Your task to perform on an android device: find photos in the google photos app Image 0: 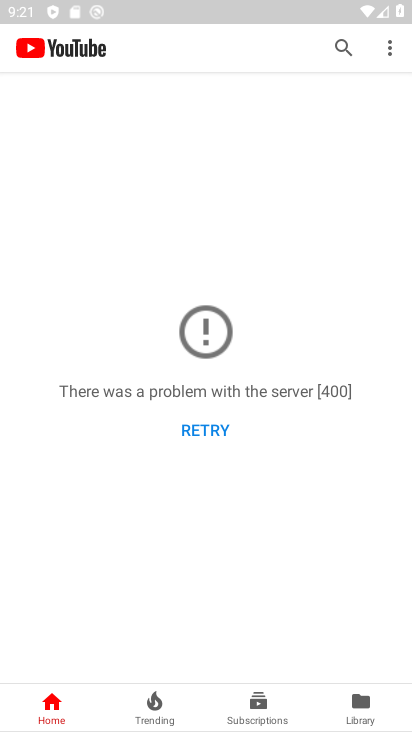
Step 0: press back button
Your task to perform on an android device: find photos in the google photos app Image 1: 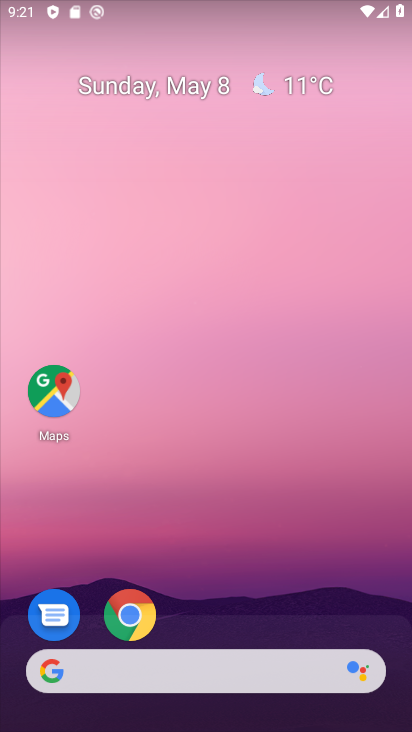
Step 1: drag from (207, 375) to (207, 247)
Your task to perform on an android device: find photos in the google photos app Image 2: 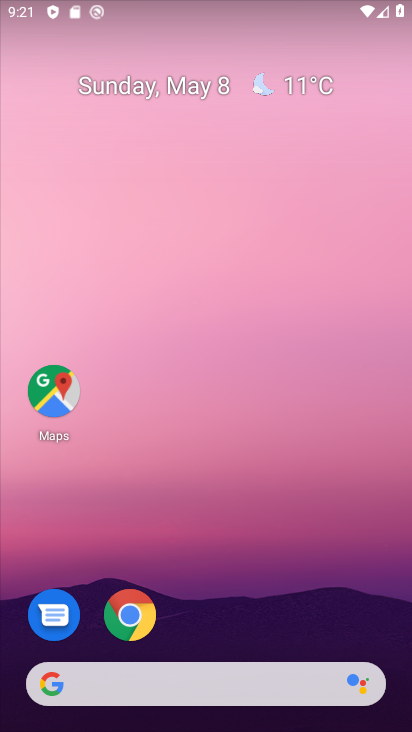
Step 2: drag from (229, 614) to (252, 94)
Your task to perform on an android device: find photos in the google photos app Image 3: 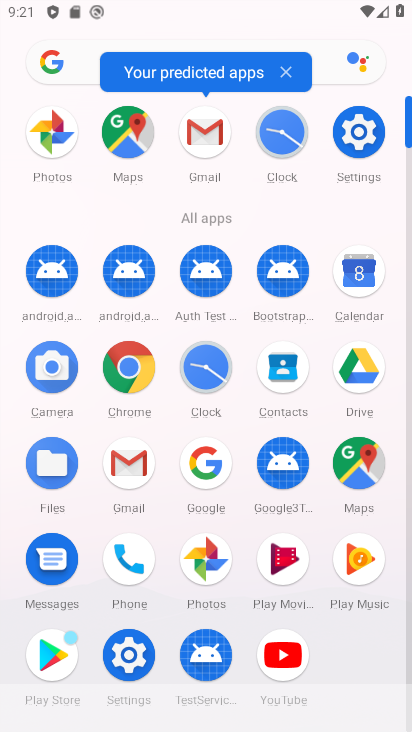
Step 3: click (55, 121)
Your task to perform on an android device: find photos in the google photos app Image 4: 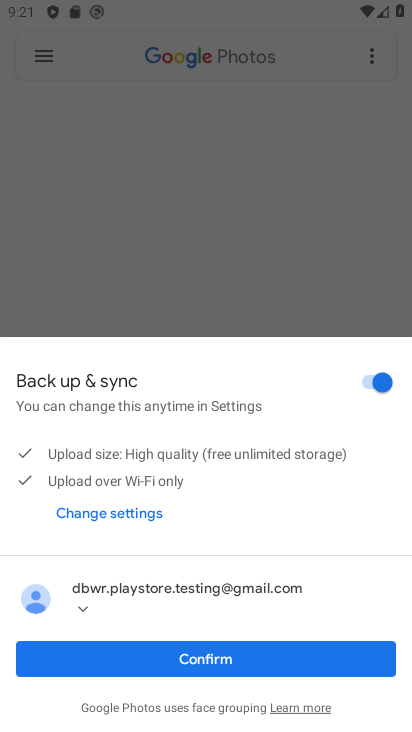
Step 4: click (164, 651)
Your task to perform on an android device: find photos in the google photos app Image 5: 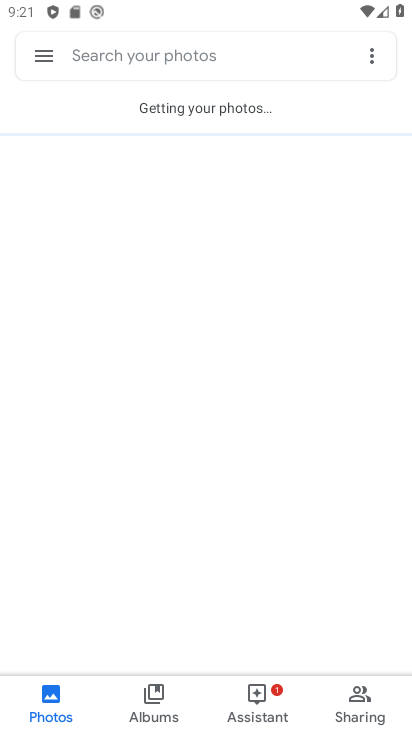
Step 5: click (107, 61)
Your task to perform on an android device: find photos in the google photos app Image 6: 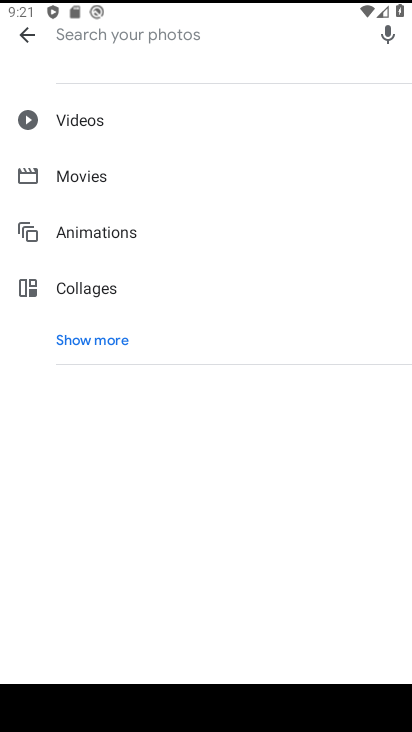
Step 6: type "aaa"
Your task to perform on an android device: find photos in the google photos app Image 7: 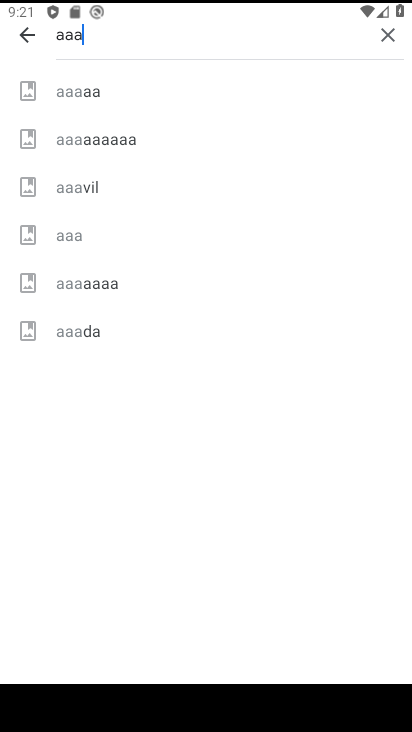
Step 7: click (105, 192)
Your task to perform on an android device: find photos in the google photos app Image 8: 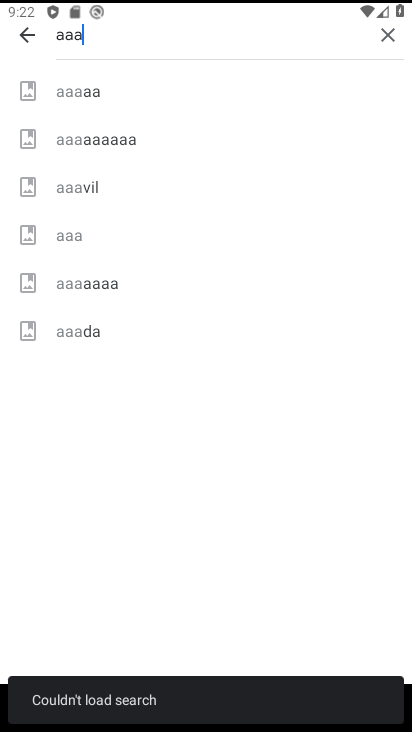
Step 8: click (132, 141)
Your task to perform on an android device: find photos in the google photos app Image 9: 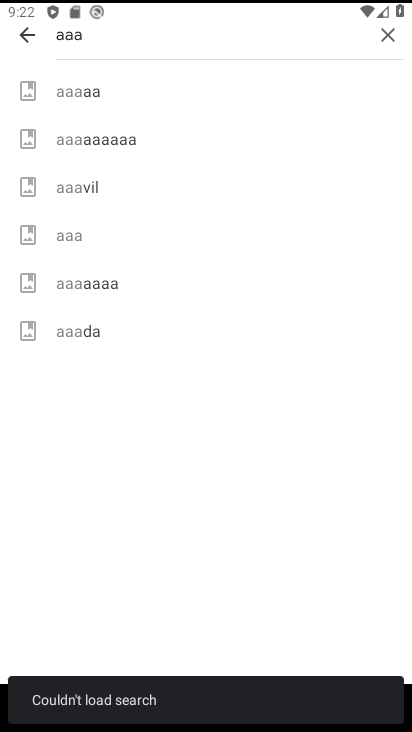
Step 9: click (55, 285)
Your task to perform on an android device: find photos in the google photos app Image 10: 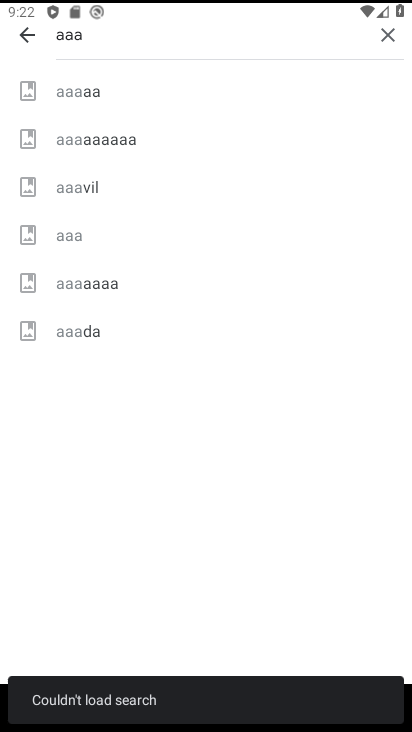
Step 10: click (71, 317)
Your task to perform on an android device: find photos in the google photos app Image 11: 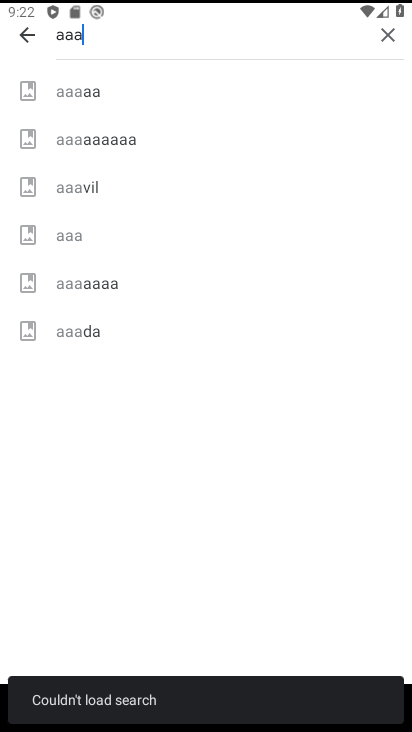
Step 11: click (89, 93)
Your task to perform on an android device: find photos in the google photos app Image 12: 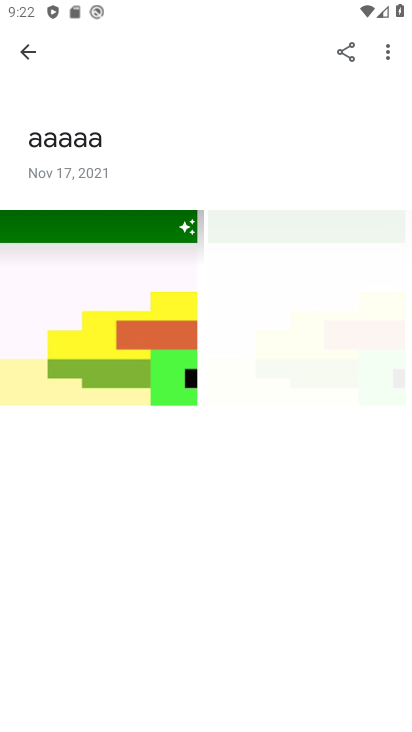
Step 12: task complete